Your task to perform on an android device: Search for the new Apple Watch on Best Buy Image 0: 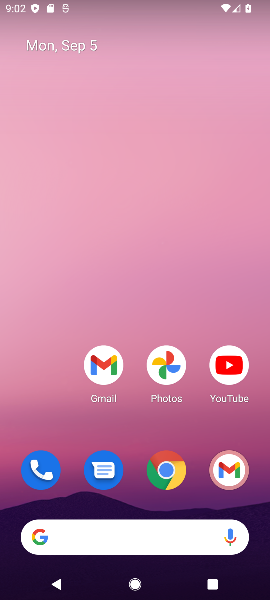
Step 0: click (146, 534)
Your task to perform on an android device: Search for the new Apple Watch on Best Buy Image 1: 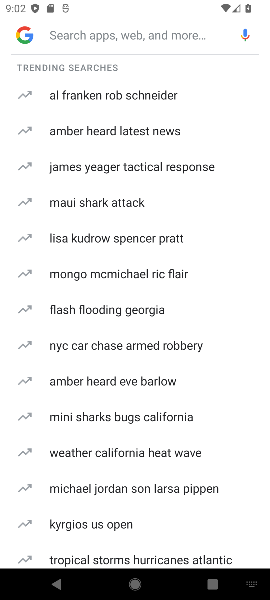
Step 1: type "best buy"
Your task to perform on an android device: Search for the new Apple Watch on Best Buy Image 2: 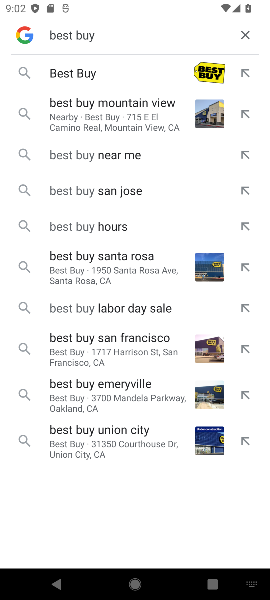
Step 2: click (81, 67)
Your task to perform on an android device: Search for the new Apple Watch on Best Buy Image 3: 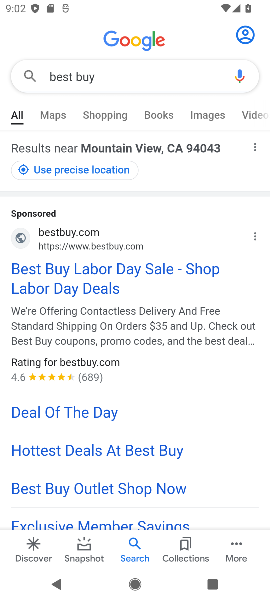
Step 3: click (76, 265)
Your task to perform on an android device: Search for the new Apple Watch on Best Buy Image 4: 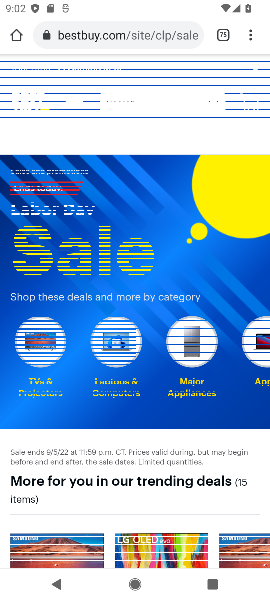
Step 4: click (140, 100)
Your task to perform on an android device: Search for the new Apple Watch on Best Buy Image 5: 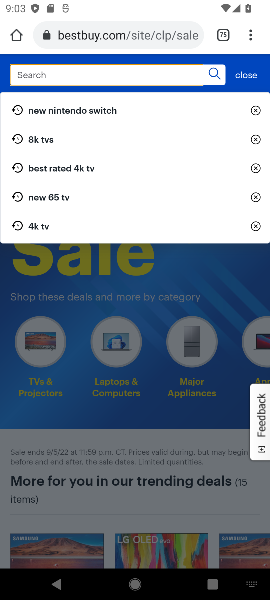
Step 5: type "new apple watch"
Your task to perform on an android device: Search for the new Apple Watch on Best Buy Image 6: 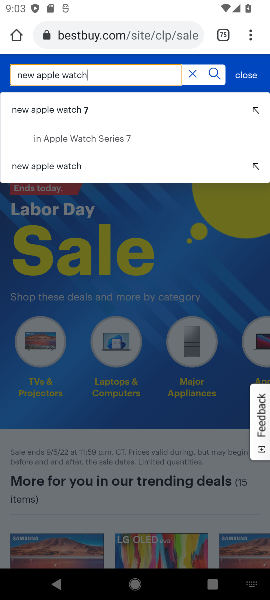
Step 6: click (212, 69)
Your task to perform on an android device: Search for the new Apple Watch on Best Buy Image 7: 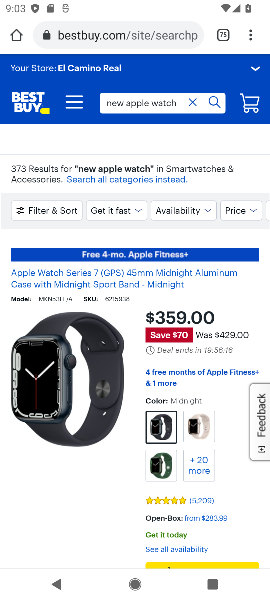
Step 7: task complete